Your task to perform on an android device: turn on showing notifications on the lock screen Image 0: 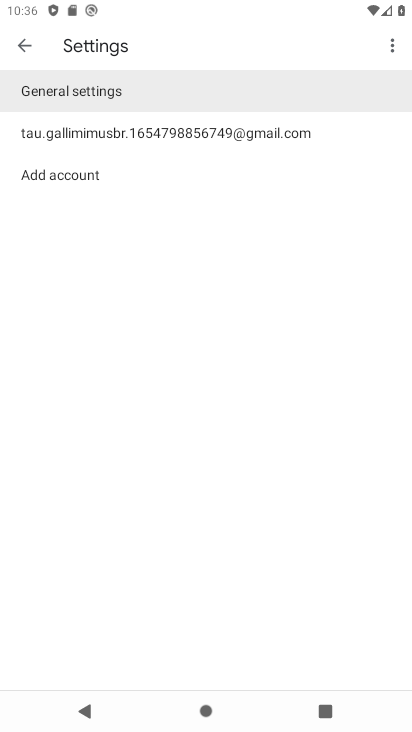
Step 0: press home button
Your task to perform on an android device: turn on showing notifications on the lock screen Image 1: 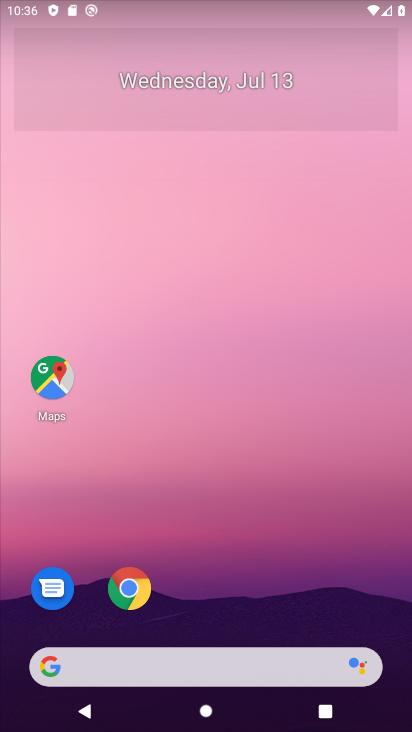
Step 1: drag from (312, 446) to (288, 63)
Your task to perform on an android device: turn on showing notifications on the lock screen Image 2: 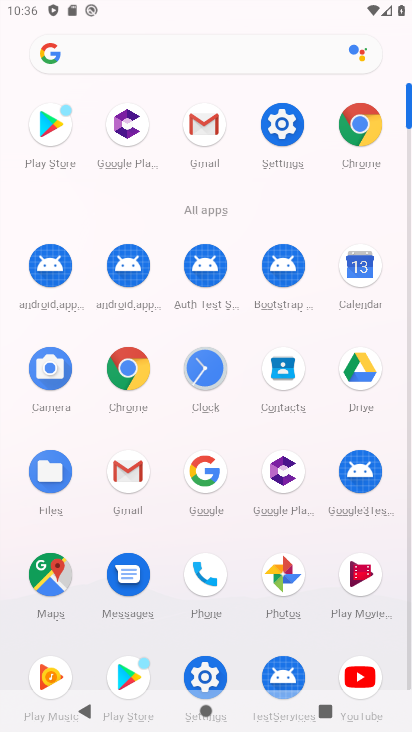
Step 2: click (276, 135)
Your task to perform on an android device: turn on showing notifications on the lock screen Image 3: 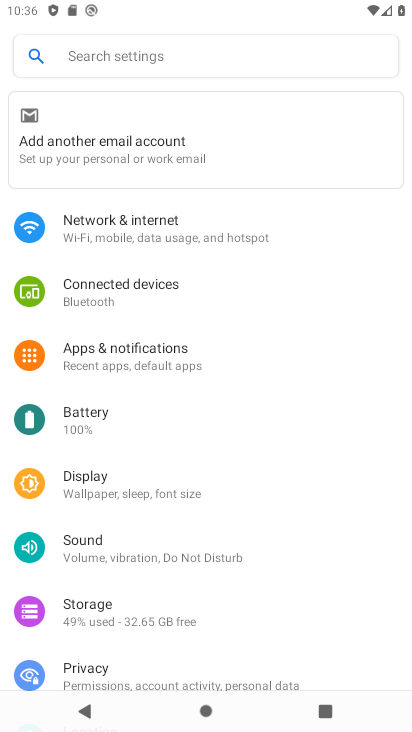
Step 3: click (204, 346)
Your task to perform on an android device: turn on showing notifications on the lock screen Image 4: 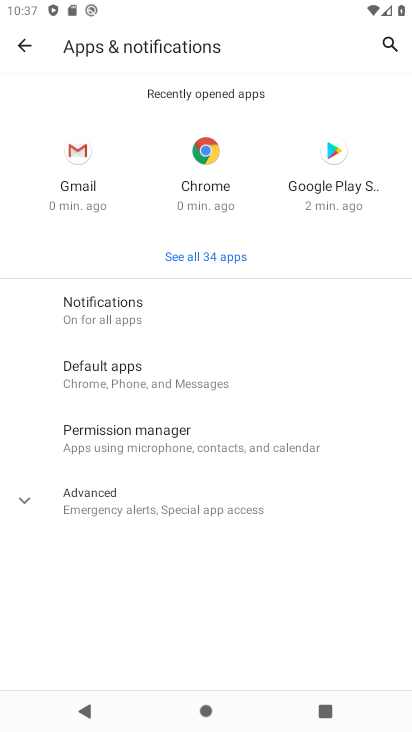
Step 4: click (185, 302)
Your task to perform on an android device: turn on showing notifications on the lock screen Image 5: 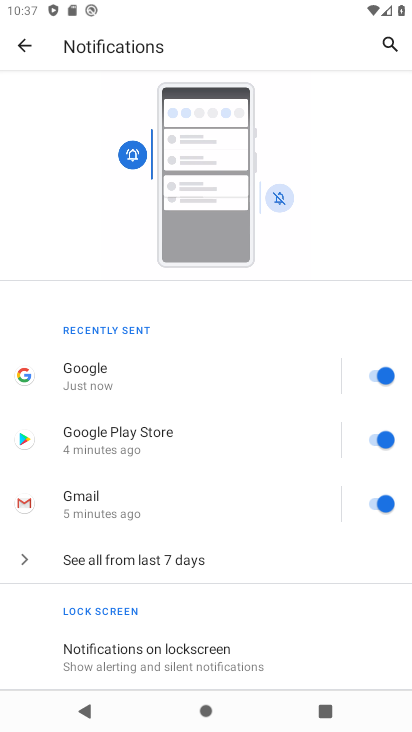
Step 5: click (237, 658)
Your task to perform on an android device: turn on showing notifications on the lock screen Image 6: 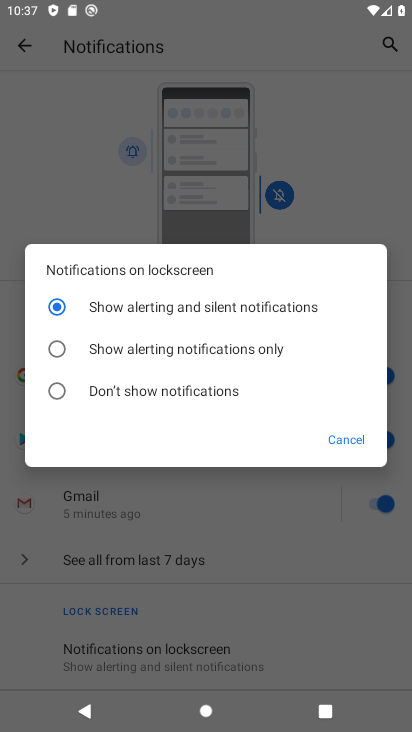
Step 6: task complete